Your task to perform on an android device: Search for sushi restaurants on Maps Image 0: 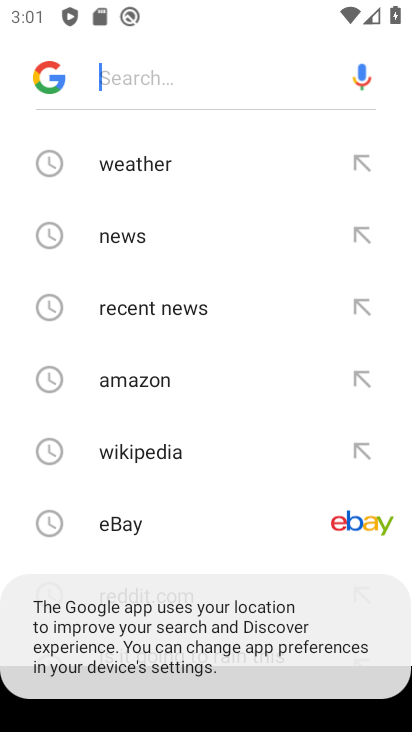
Step 0: press back button
Your task to perform on an android device: Search for sushi restaurants on Maps Image 1: 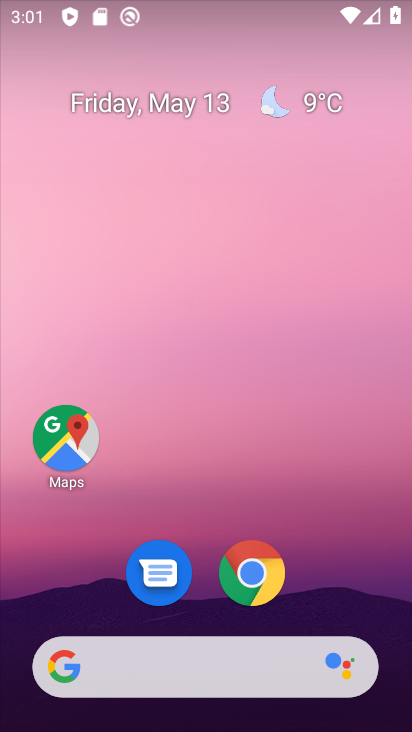
Step 1: click (58, 445)
Your task to perform on an android device: Search for sushi restaurants on Maps Image 2: 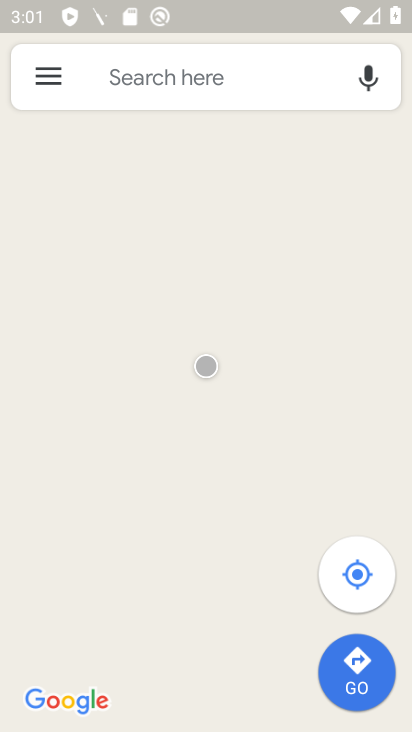
Step 2: click (201, 79)
Your task to perform on an android device: Search for sushi restaurants on Maps Image 3: 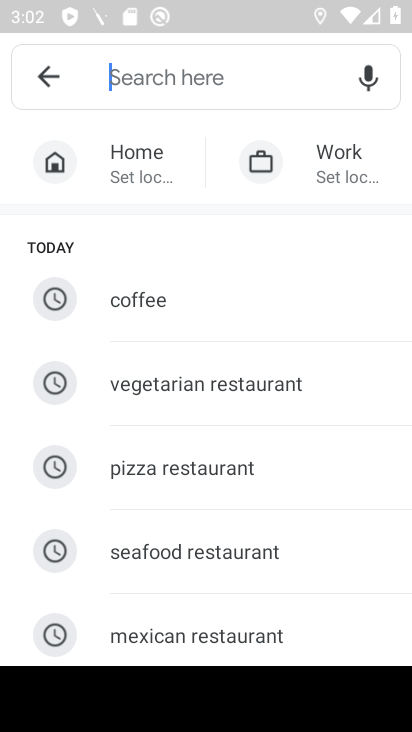
Step 3: type "sushi restaurants"
Your task to perform on an android device: Search for sushi restaurants on Maps Image 4: 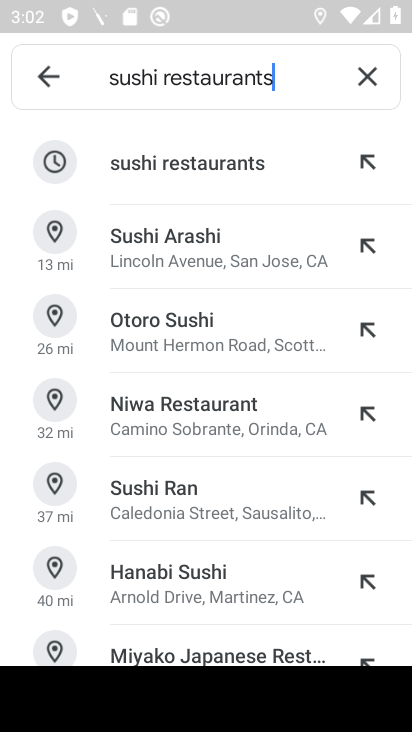
Step 4: click (219, 171)
Your task to perform on an android device: Search for sushi restaurants on Maps Image 5: 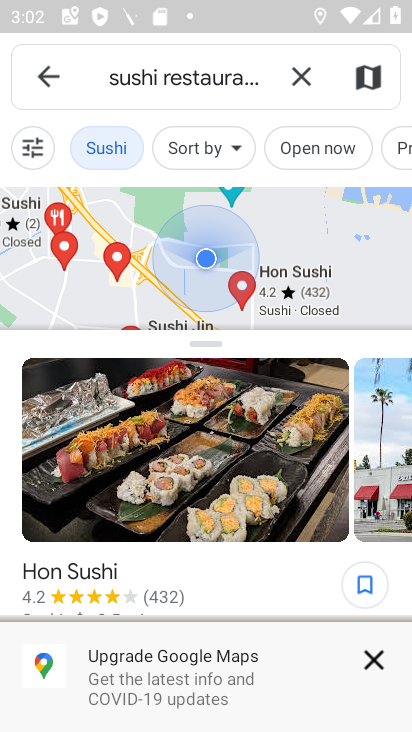
Step 5: click (385, 663)
Your task to perform on an android device: Search for sushi restaurants on Maps Image 6: 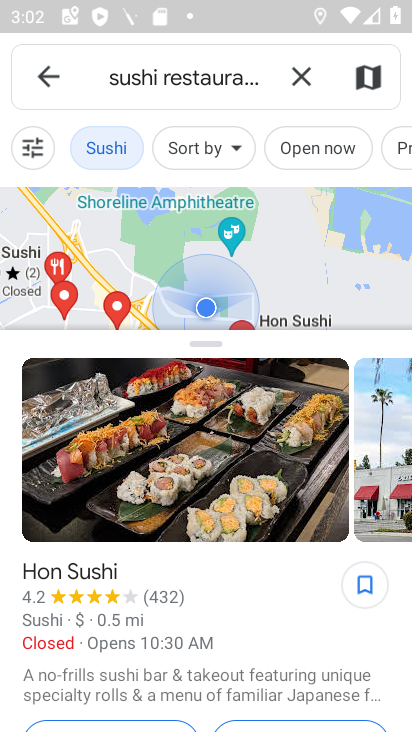
Step 6: task complete